Your task to perform on an android device: turn off improve location accuracy Image 0: 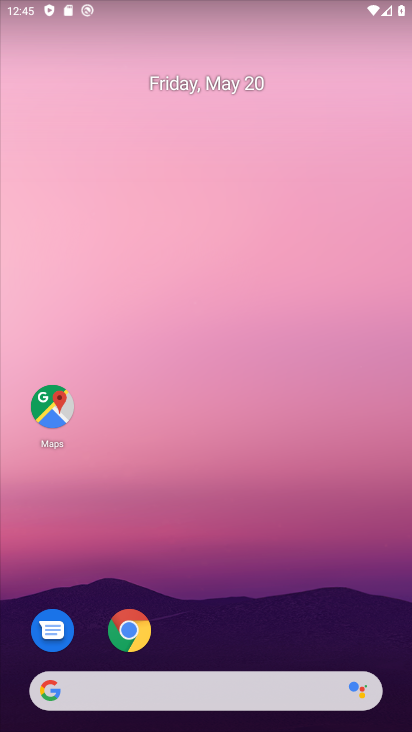
Step 0: press home button
Your task to perform on an android device: turn off improve location accuracy Image 1: 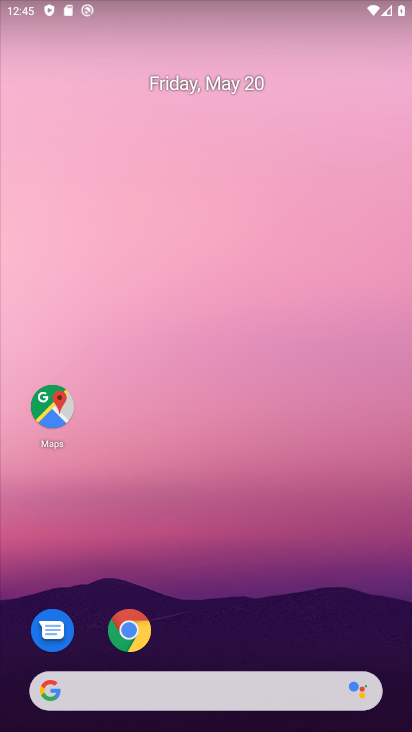
Step 1: drag from (220, 704) to (157, 68)
Your task to perform on an android device: turn off improve location accuracy Image 2: 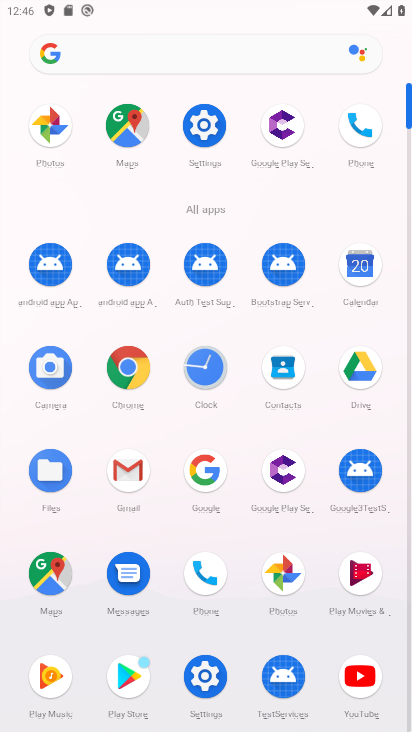
Step 2: click (197, 674)
Your task to perform on an android device: turn off improve location accuracy Image 3: 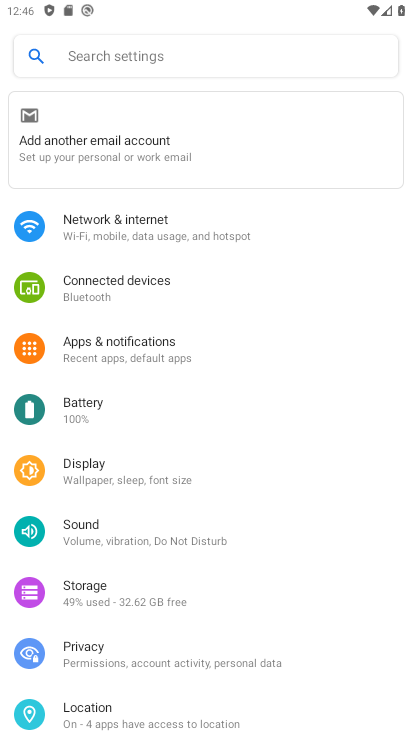
Step 3: click (105, 62)
Your task to perform on an android device: turn off improve location accuracy Image 4: 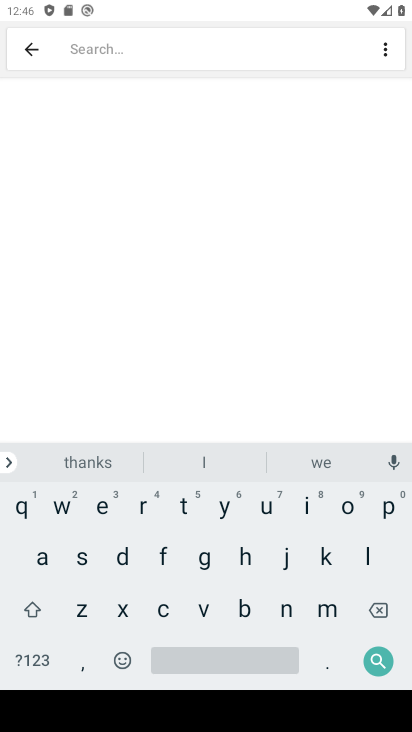
Step 4: click (366, 560)
Your task to perform on an android device: turn off improve location accuracy Image 5: 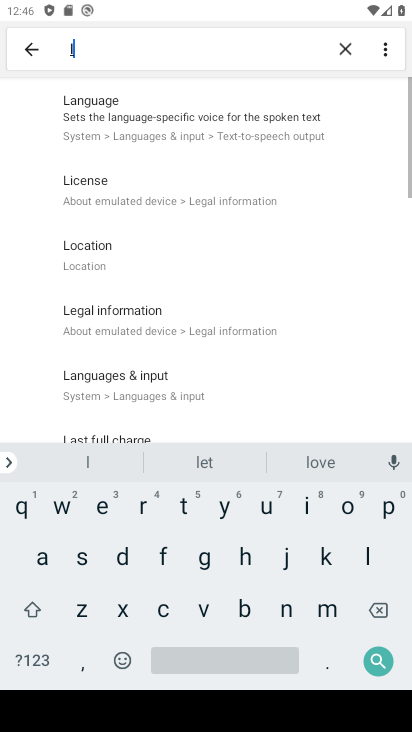
Step 5: click (337, 500)
Your task to perform on an android device: turn off improve location accuracy Image 6: 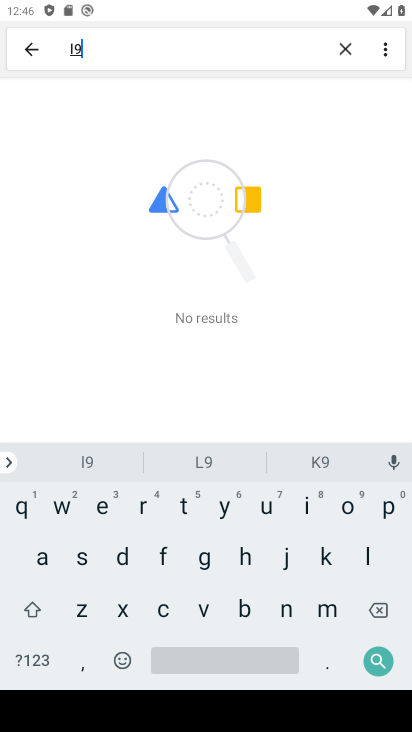
Step 6: click (389, 599)
Your task to perform on an android device: turn off improve location accuracy Image 7: 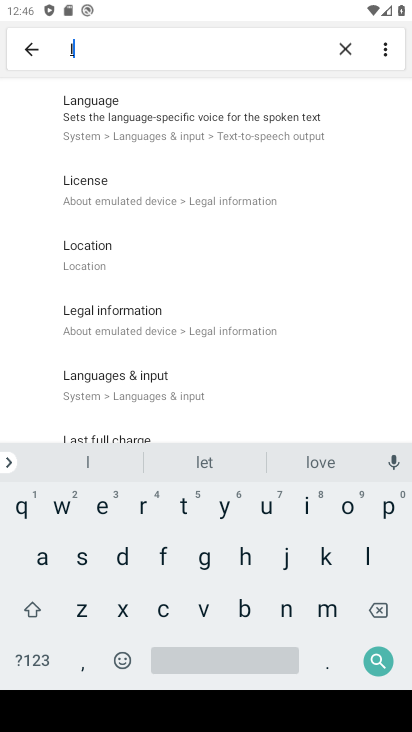
Step 7: click (344, 510)
Your task to perform on an android device: turn off improve location accuracy Image 8: 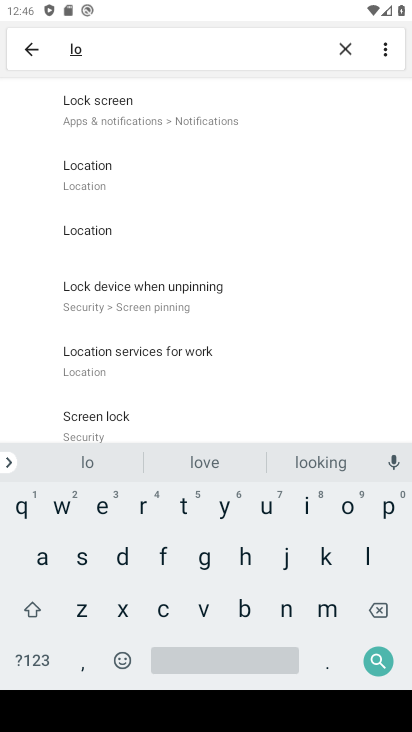
Step 8: click (97, 166)
Your task to perform on an android device: turn off improve location accuracy Image 9: 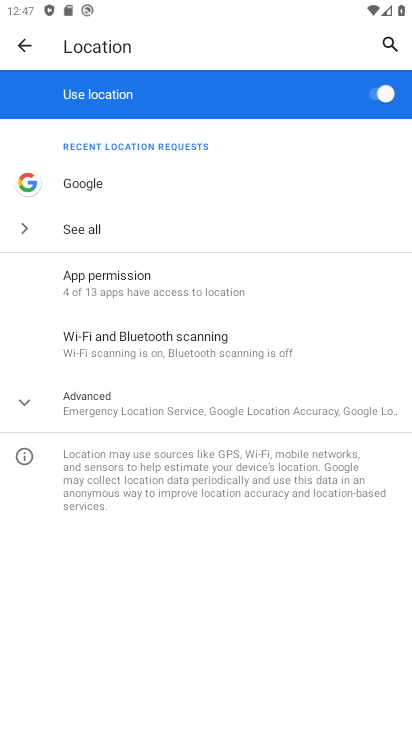
Step 9: click (34, 401)
Your task to perform on an android device: turn off improve location accuracy Image 10: 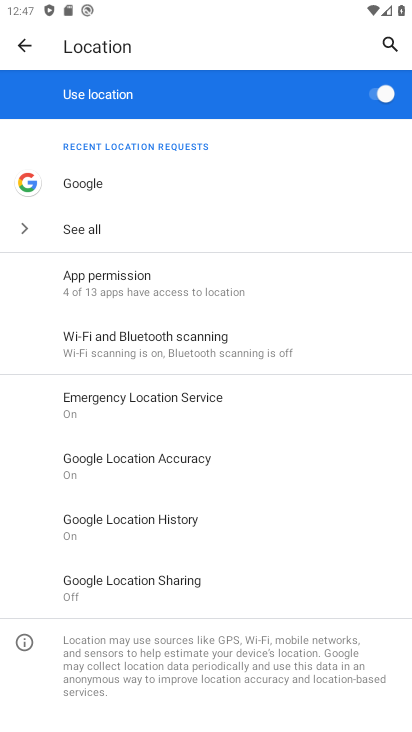
Step 10: click (132, 454)
Your task to perform on an android device: turn off improve location accuracy Image 11: 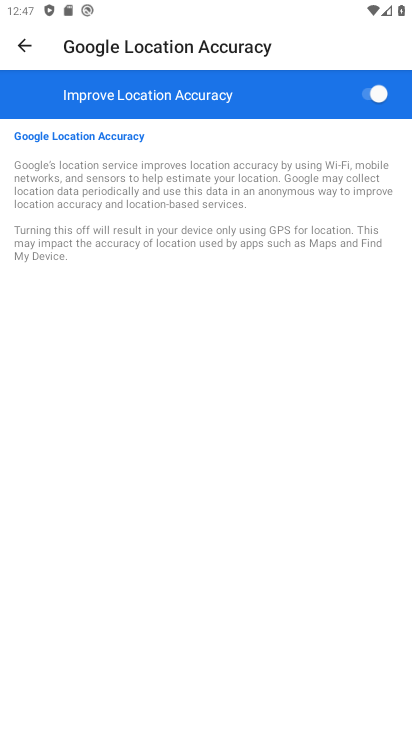
Step 11: click (377, 103)
Your task to perform on an android device: turn off improve location accuracy Image 12: 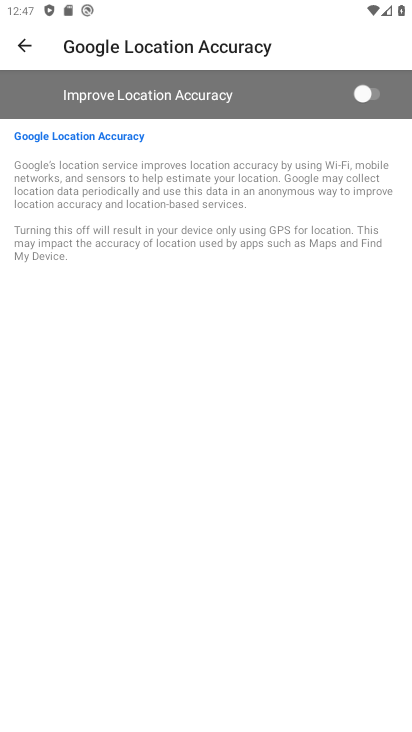
Step 12: task complete